Your task to perform on an android device: Show me popular games on the Play Store Image 0: 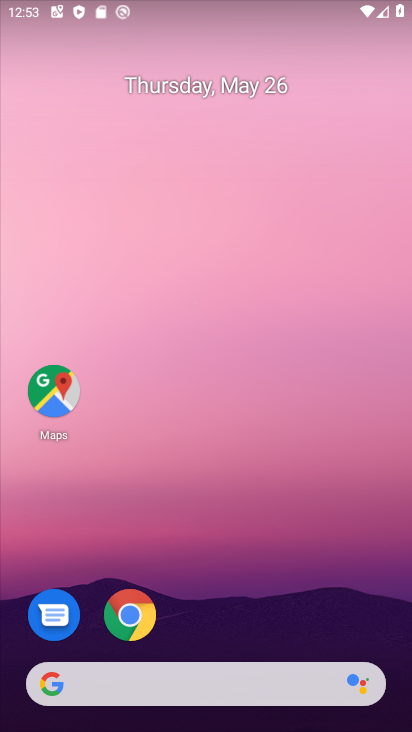
Step 0: drag from (305, 638) to (345, 121)
Your task to perform on an android device: Show me popular games on the Play Store Image 1: 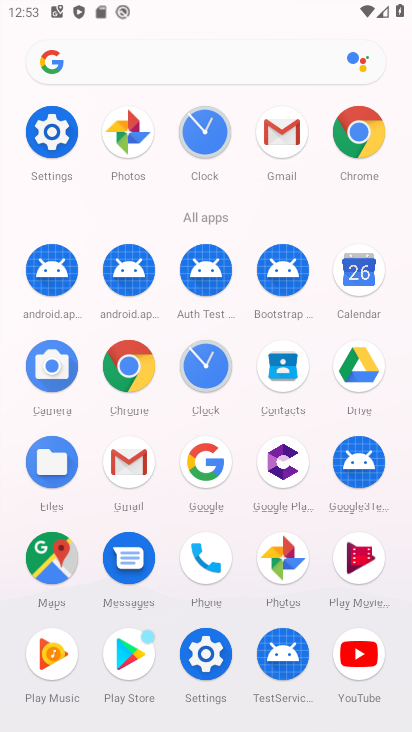
Step 1: click (107, 661)
Your task to perform on an android device: Show me popular games on the Play Store Image 2: 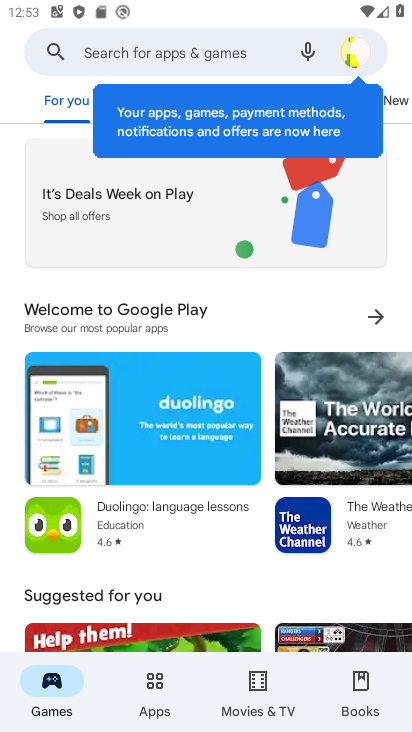
Step 2: drag from (273, 518) to (353, 74)
Your task to perform on an android device: Show me popular games on the Play Store Image 3: 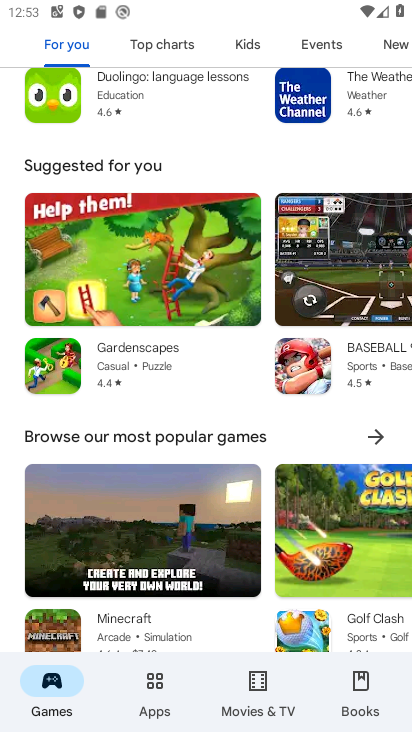
Step 3: click (361, 433)
Your task to perform on an android device: Show me popular games on the Play Store Image 4: 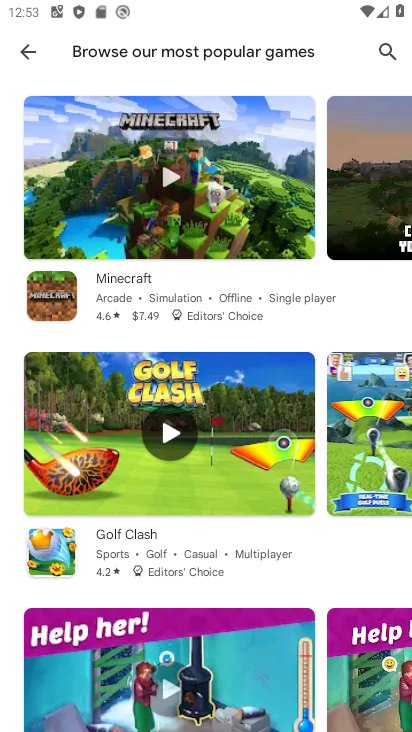
Step 4: task complete